Your task to perform on an android device: delete a single message in the gmail app Image 0: 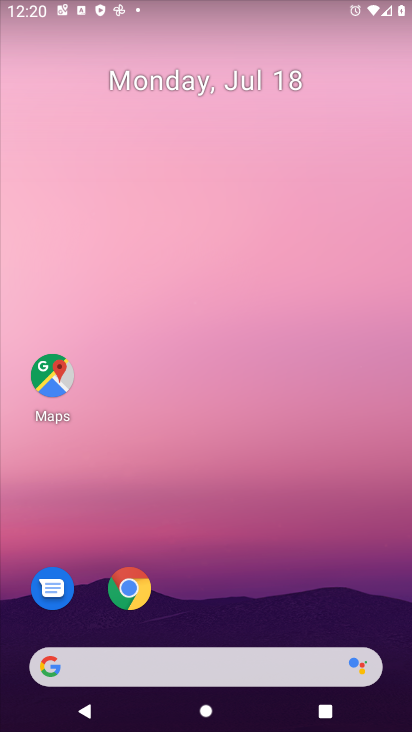
Step 0: drag from (296, 590) to (311, 238)
Your task to perform on an android device: delete a single message in the gmail app Image 1: 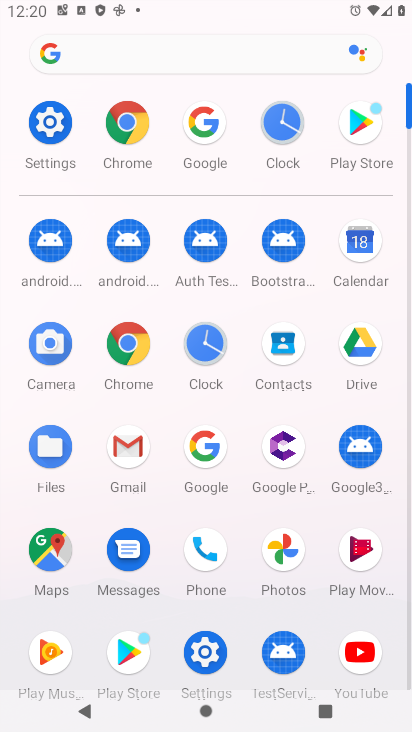
Step 1: click (121, 457)
Your task to perform on an android device: delete a single message in the gmail app Image 2: 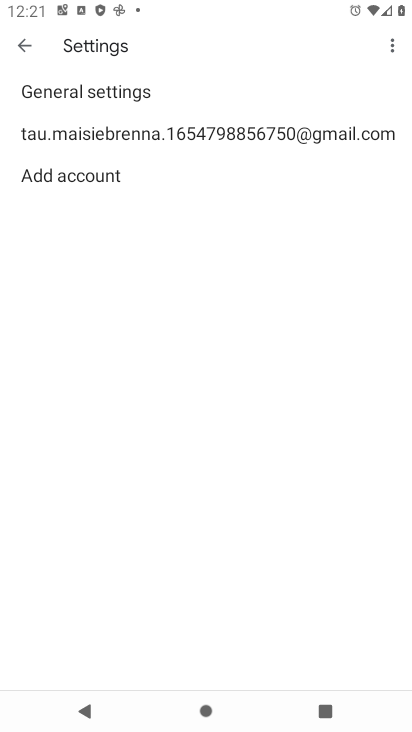
Step 2: click (21, 56)
Your task to perform on an android device: delete a single message in the gmail app Image 3: 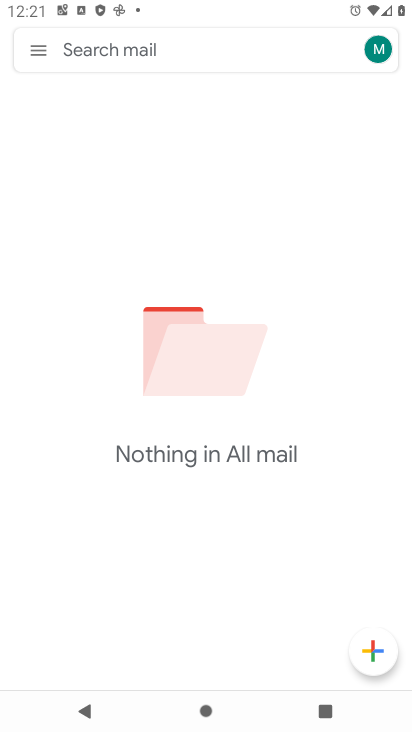
Step 3: task complete